Your task to perform on an android device: Go to sound settings Image 0: 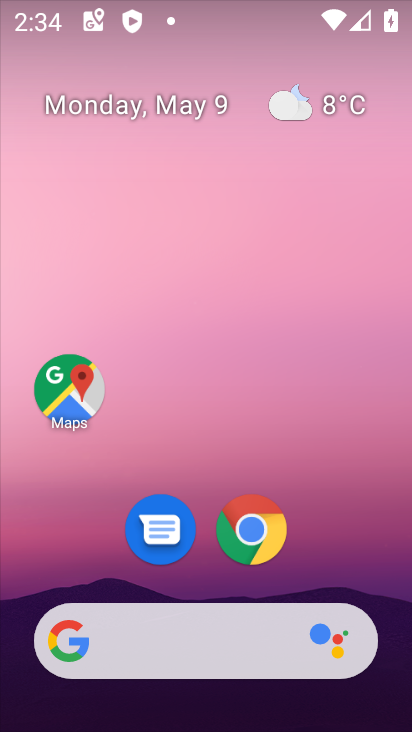
Step 0: drag from (246, 704) to (315, 26)
Your task to perform on an android device: Go to sound settings Image 1: 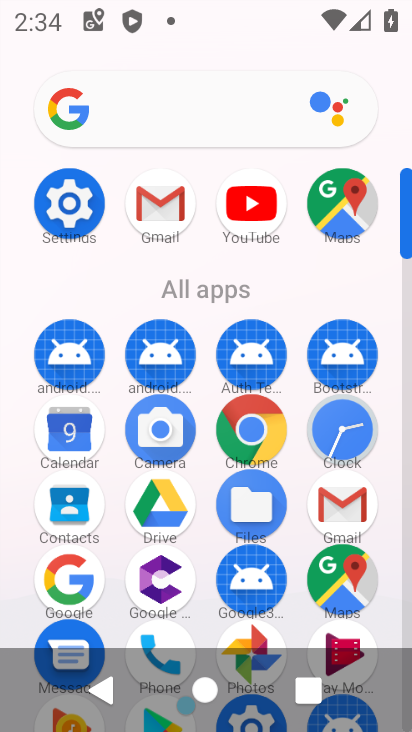
Step 1: click (86, 214)
Your task to perform on an android device: Go to sound settings Image 2: 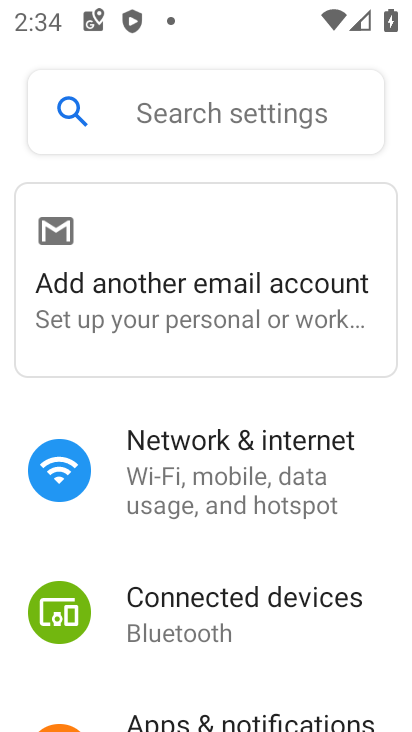
Step 2: drag from (250, 716) to (194, 309)
Your task to perform on an android device: Go to sound settings Image 3: 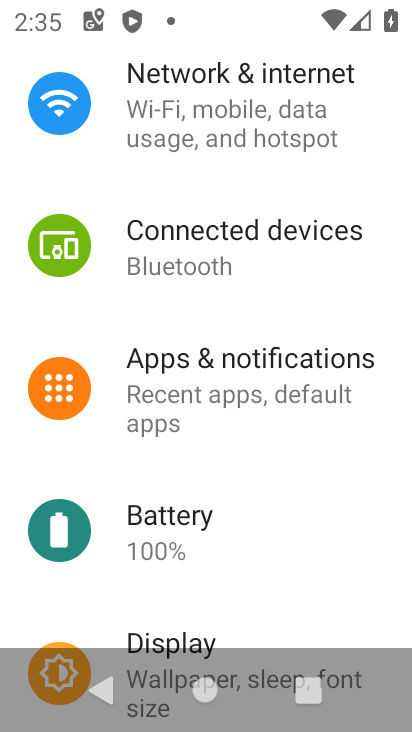
Step 3: drag from (265, 585) to (232, 129)
Your task to perform on an android device: Go to sound settings Image 4: 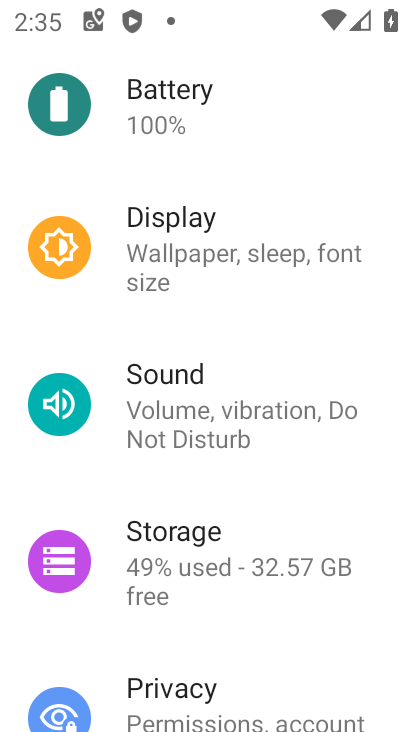
Step 4: click (198, 426)
Your task to perform on an android device: Go to sound settings Image 5: 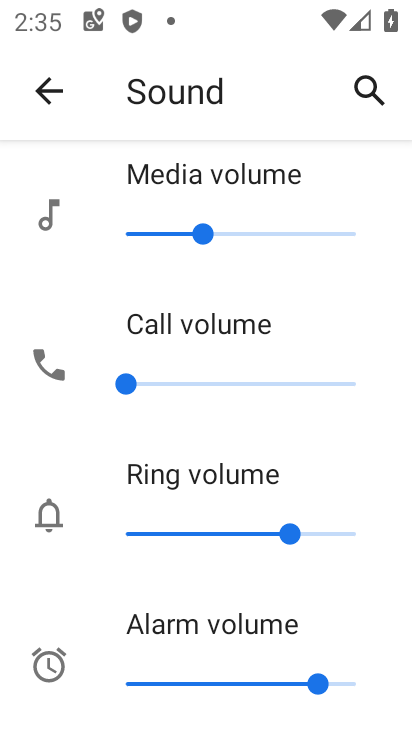
Step 5: task complete